Your task to perform on an android device: Search for flights from Buenos aires to Helsinki Image 0: 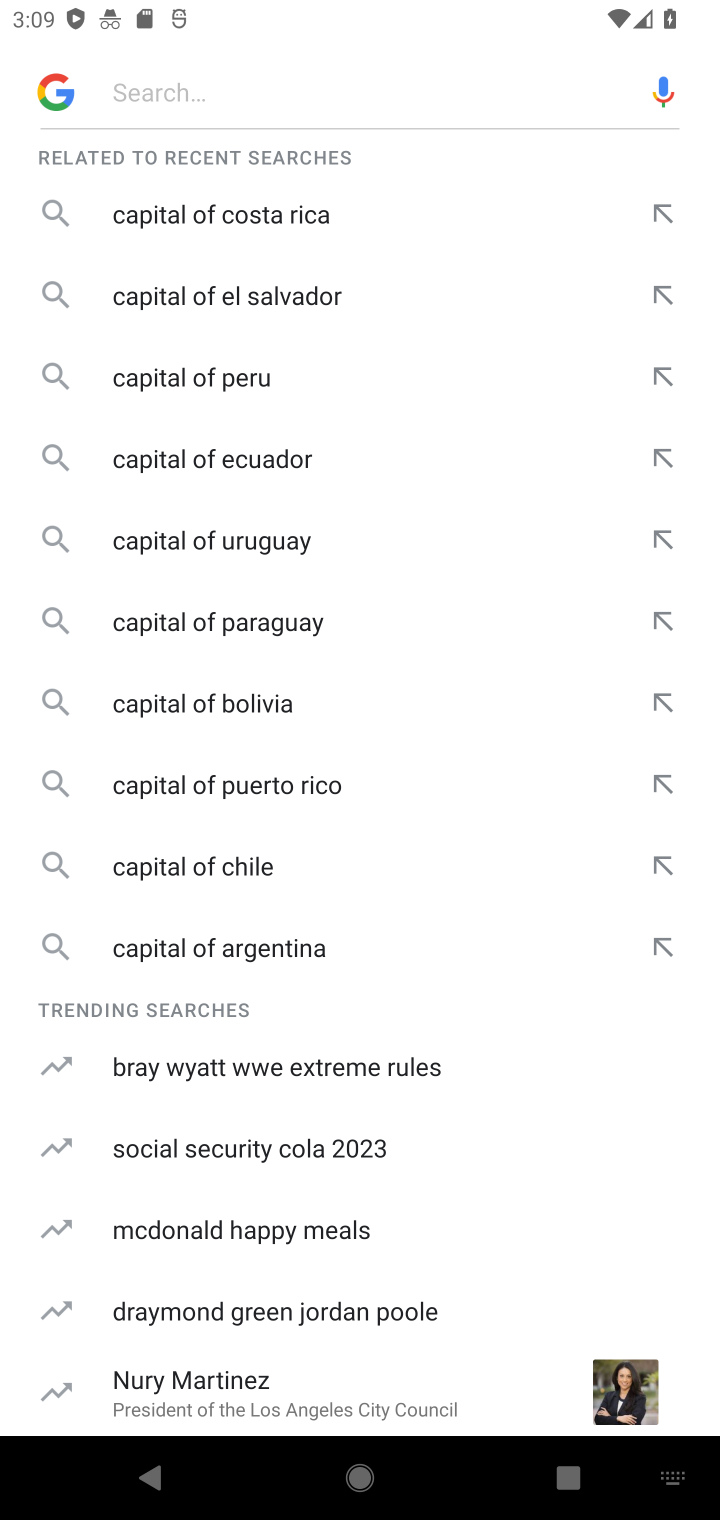
Step 0: press home button
Your task to perform on an android device: Search for flights from Buenos aires to Helsinki Image 1: 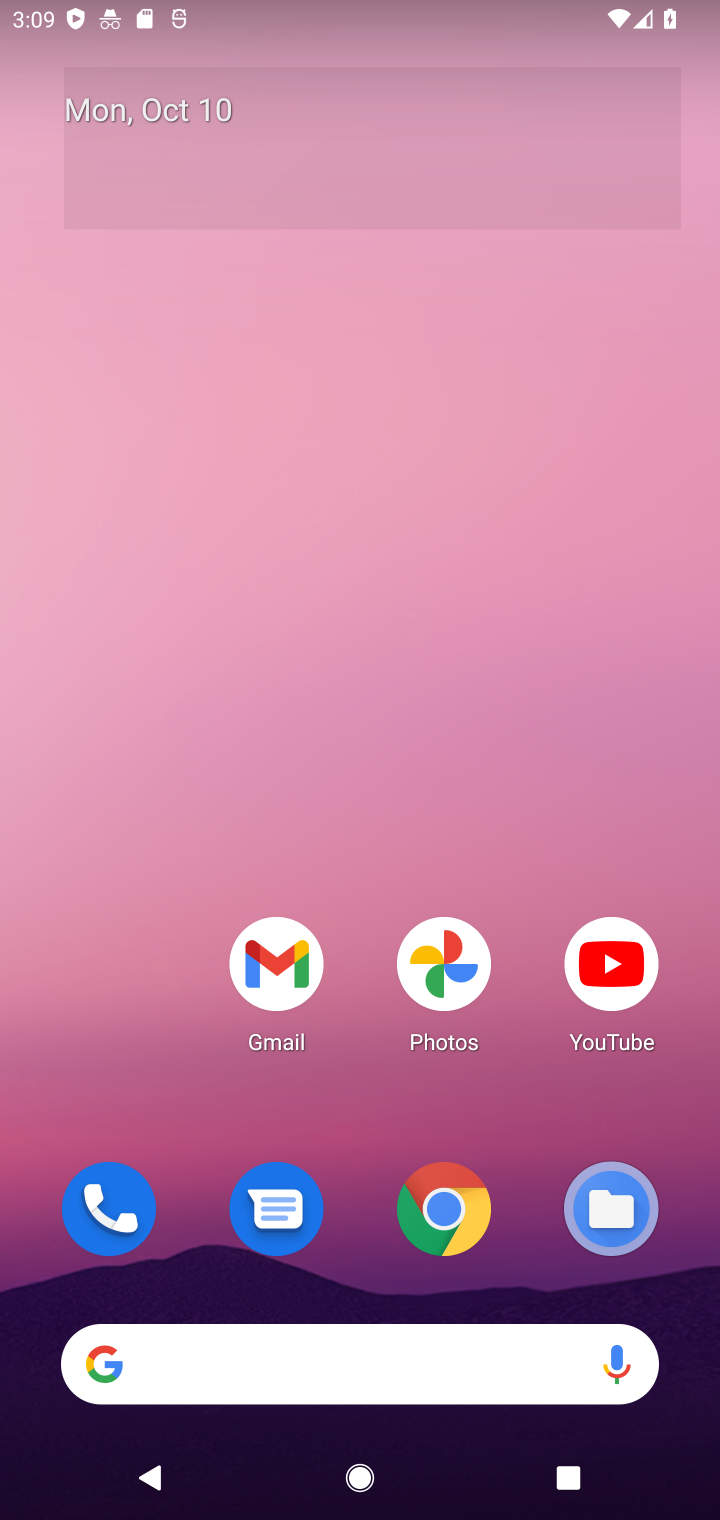
Step 1: click (498, 1198)
Your task to perform on an android device: Search for flights from Buenos aires to Helsinki Image 2: 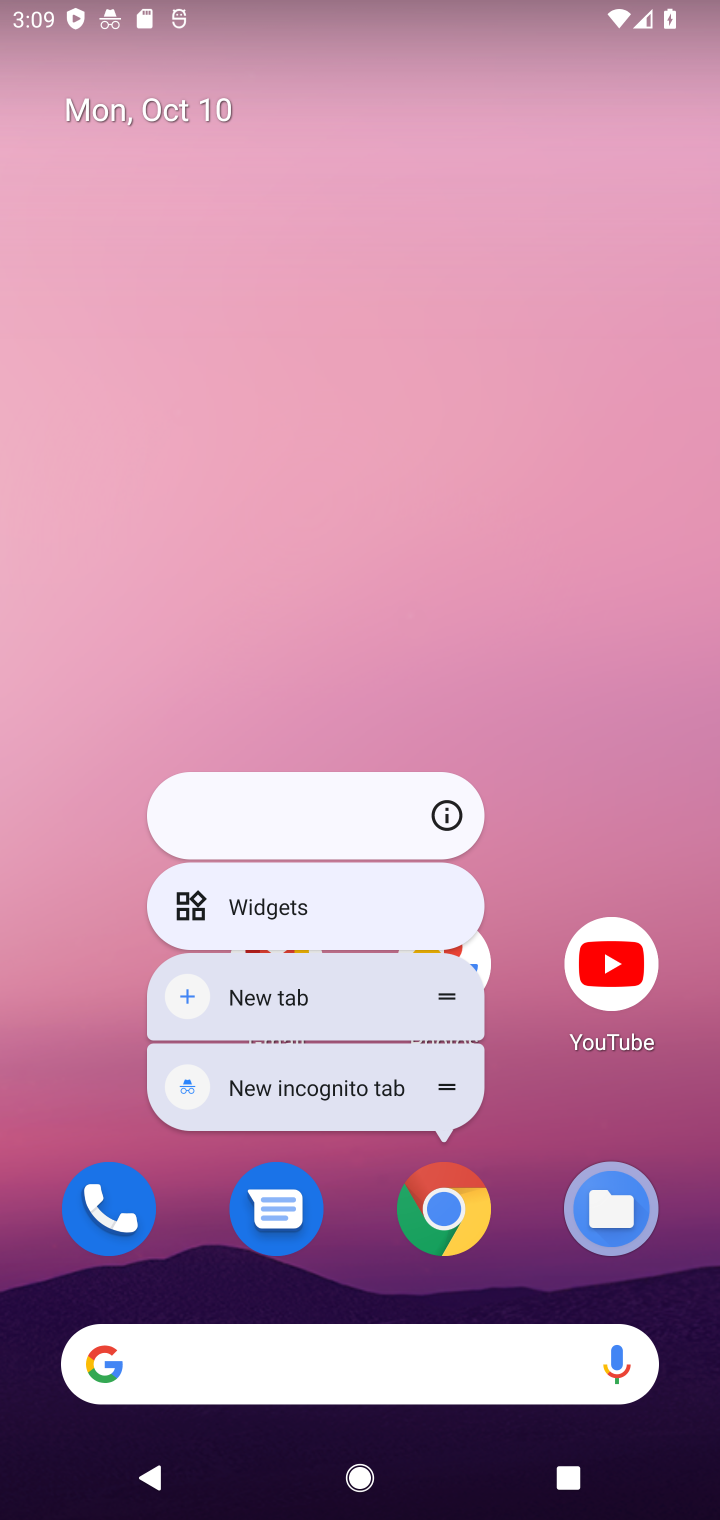
Step 2: click (467, 1214)
Your task to perform on an android device: Search for flights from Buenos aires to Helsinki Image 3: 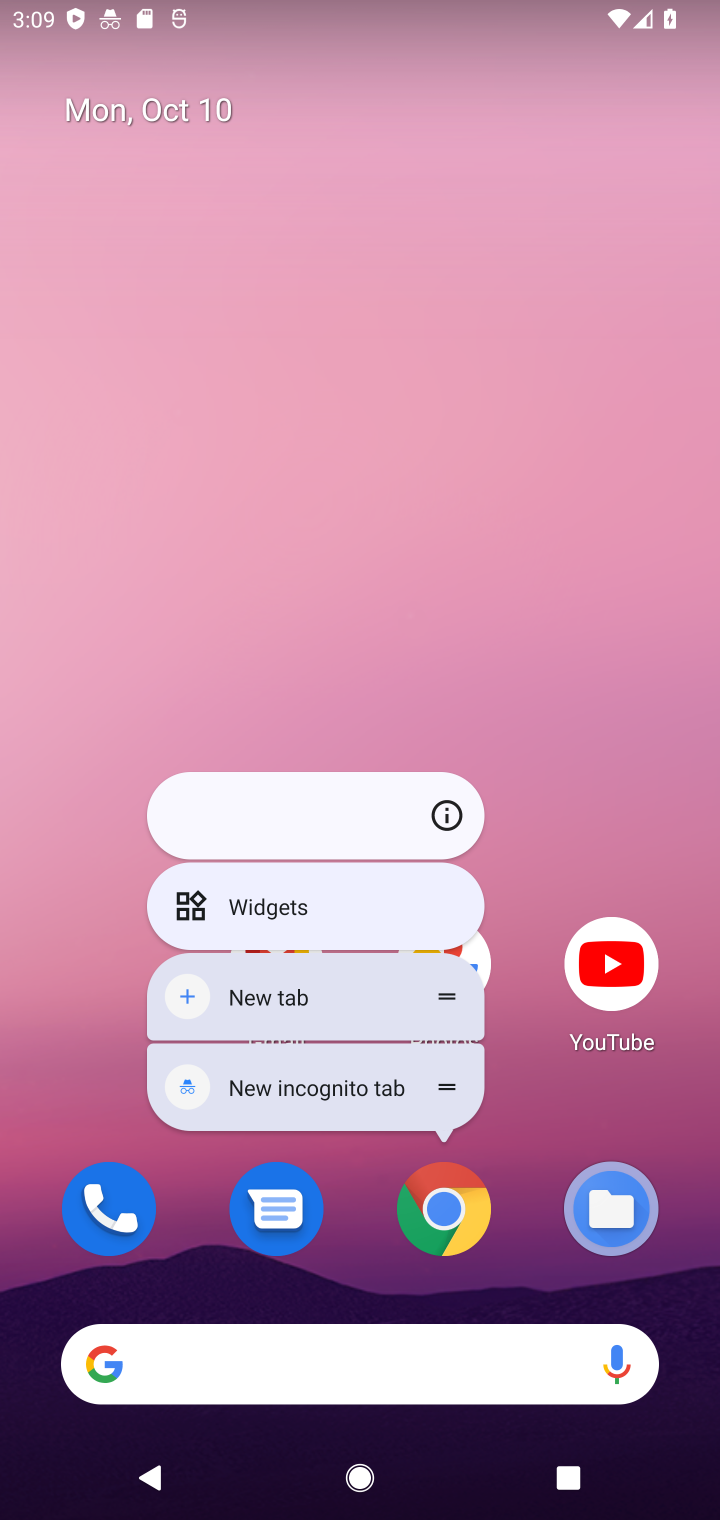
Step 3: click (467, 1214)
Your task to perform on an android device: Search for flights from Buenos aires to Helsinki Image 4: 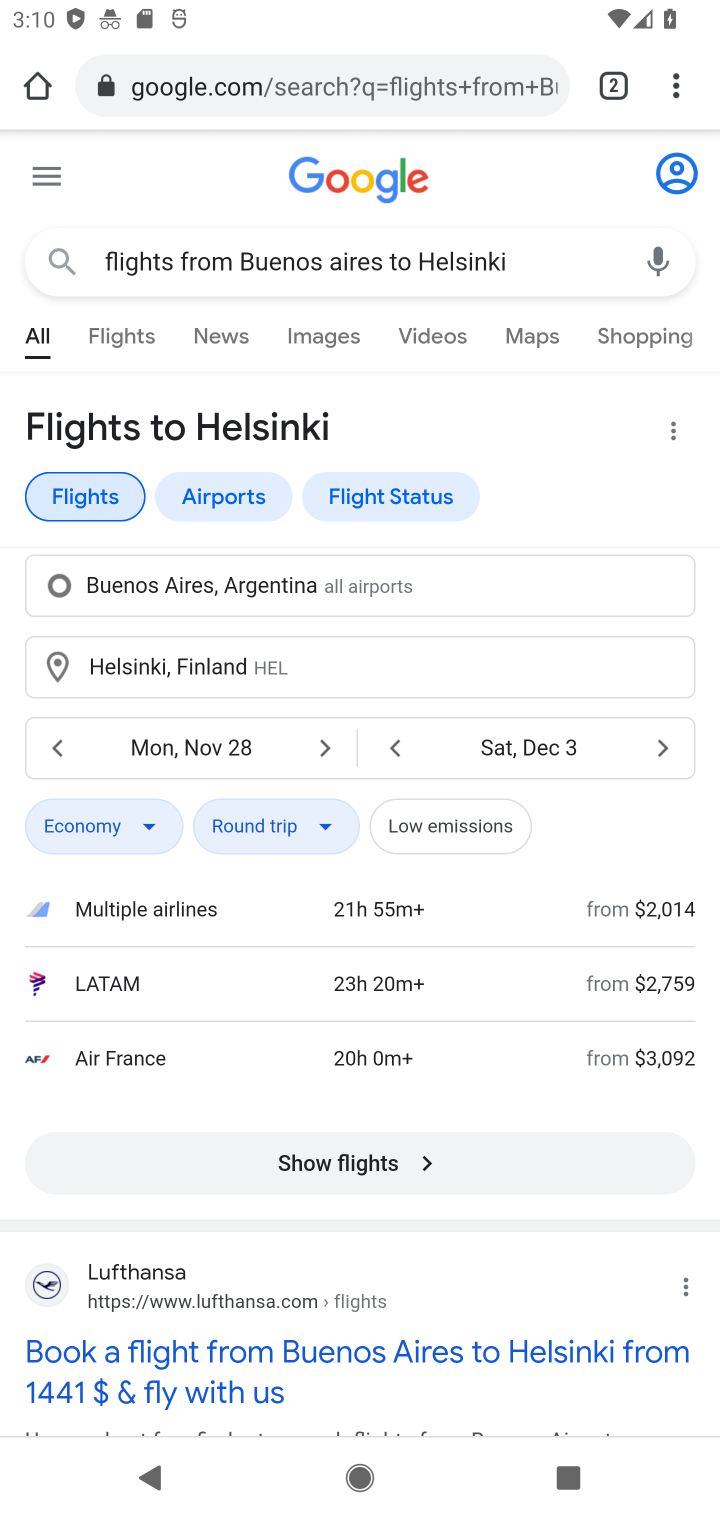
Step 4: task complete